Your task to perform on an android device: Search for a coffee table on Crate & Barrel Image 0: 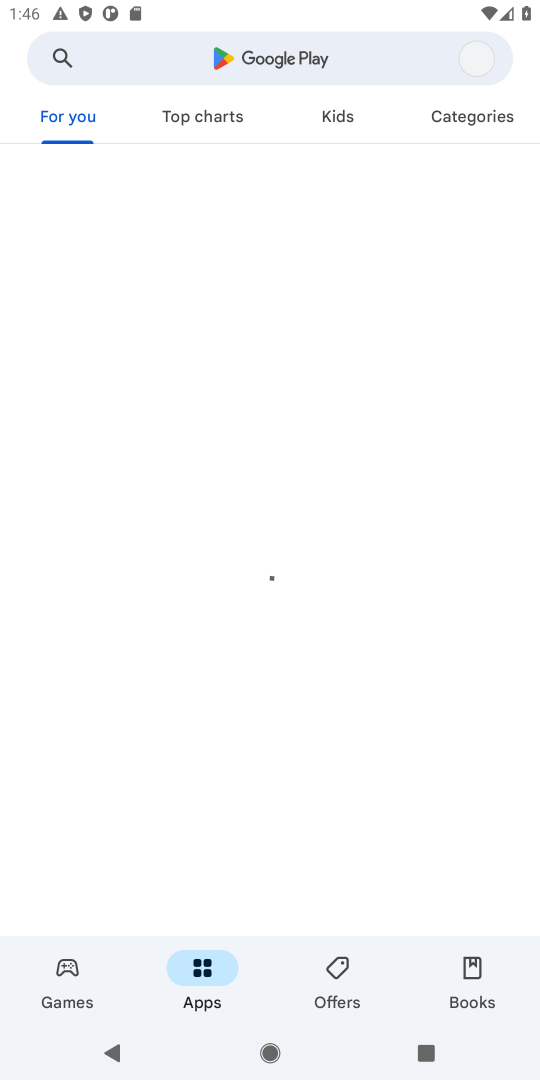
Step 0: press home button
Your task to perform on an android device: Search for a coffee table on Crate & Barrel Image 1: 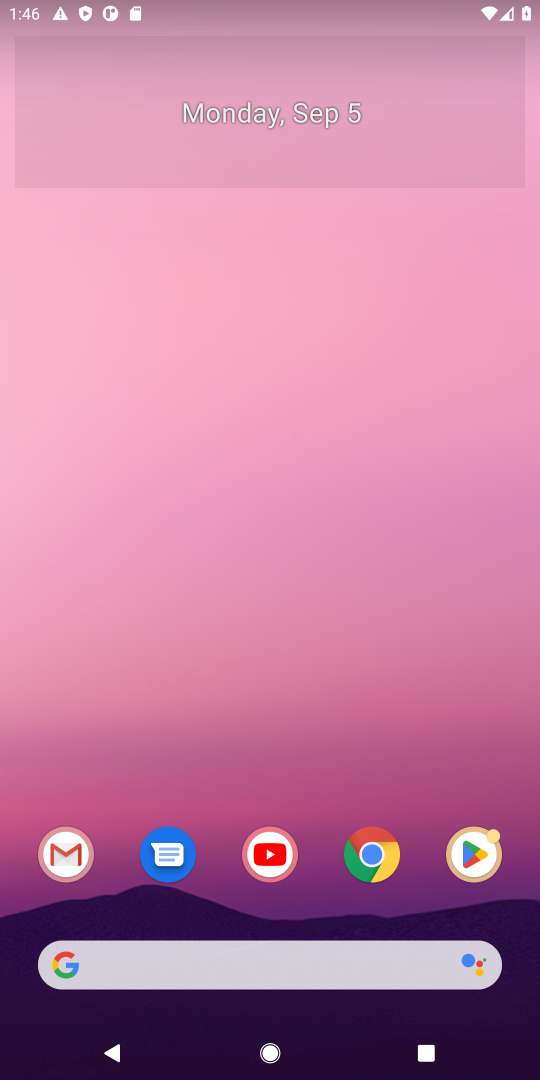
Step 1: click (353, 965)
Your task to perform on an android device: Search for a coffee table on Crate & Barrel Image 2: 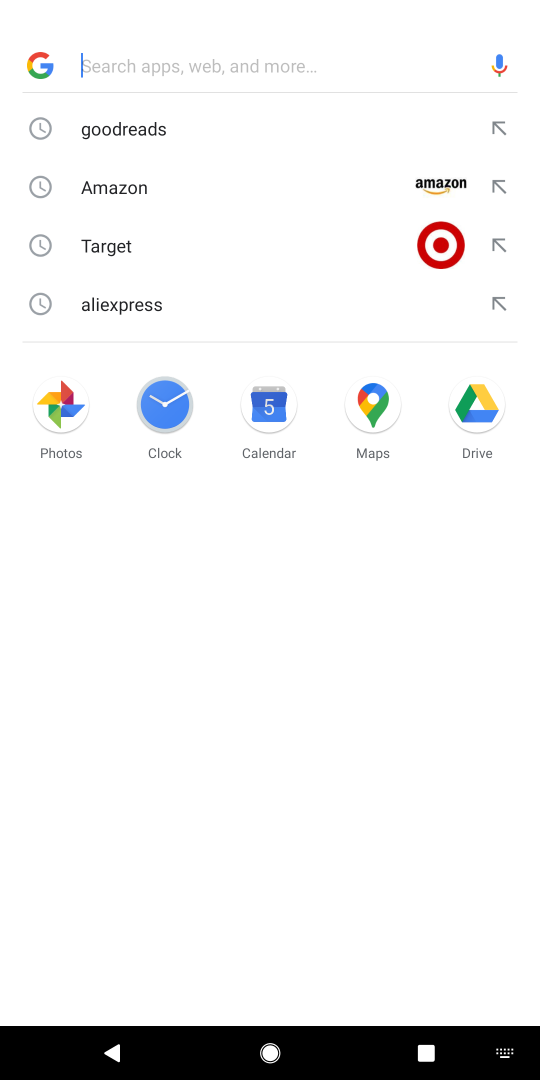
Step 2: type "crate barrel"
Your task to perform on an android device: Search for a coffee table on Crate & Barrel Image 3: 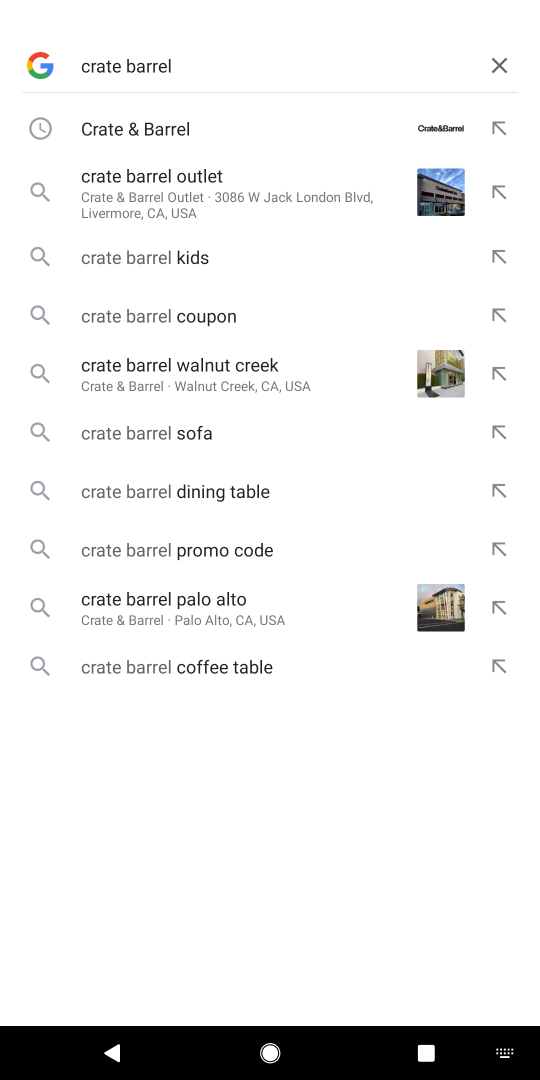
Step 3: press enter
Your task to perform on an android device: Search for a coffee table on Crate & Barrel Image 4: 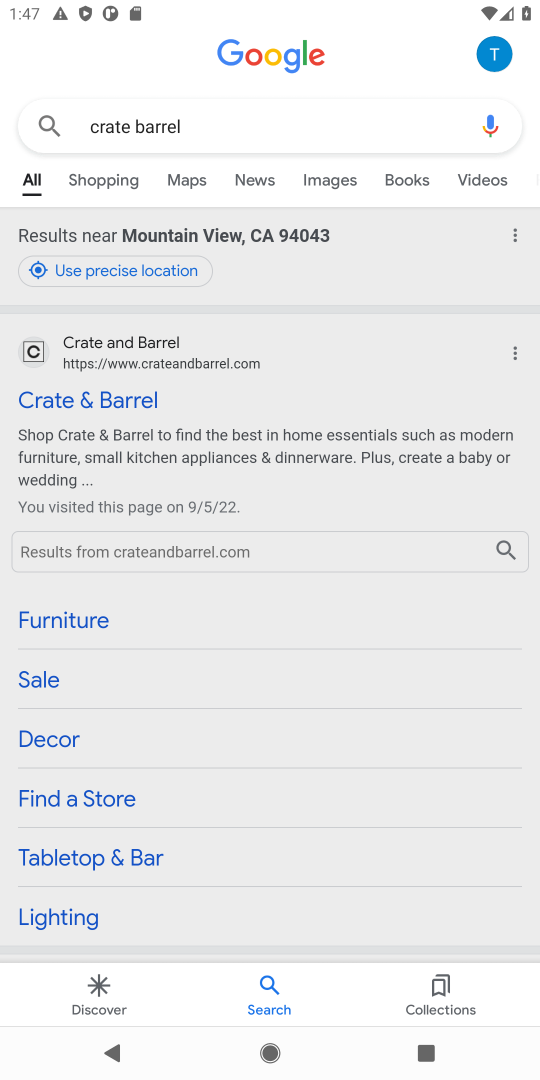
Step 4: click (97, 387)
Your task to perform on an android device: Search for a coffee table on Crate & Barrel Image 5: 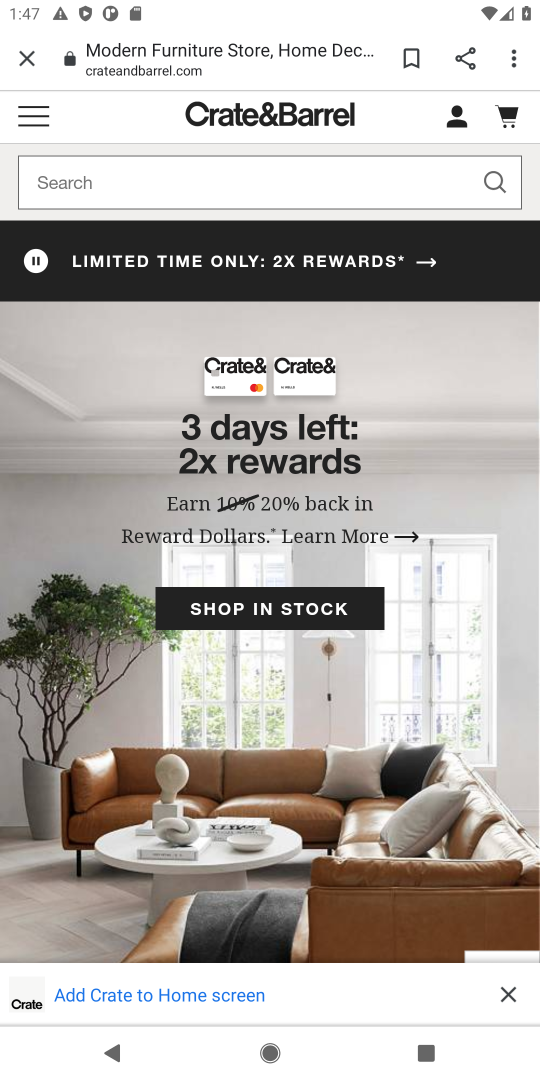
Step 5: click (152, 168)
Your task to perform on an android device: Search for a coffee table on Crate & Barrel Image 6: 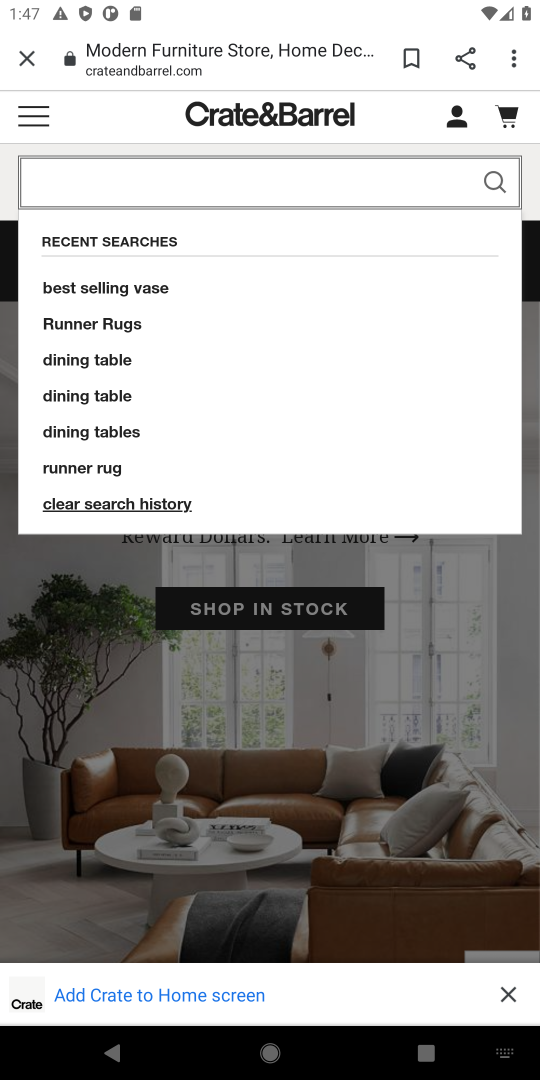
Step 6: press enter
Your task to perform on an android device: Search for a coffee table on Crate & Barrel Image 7: 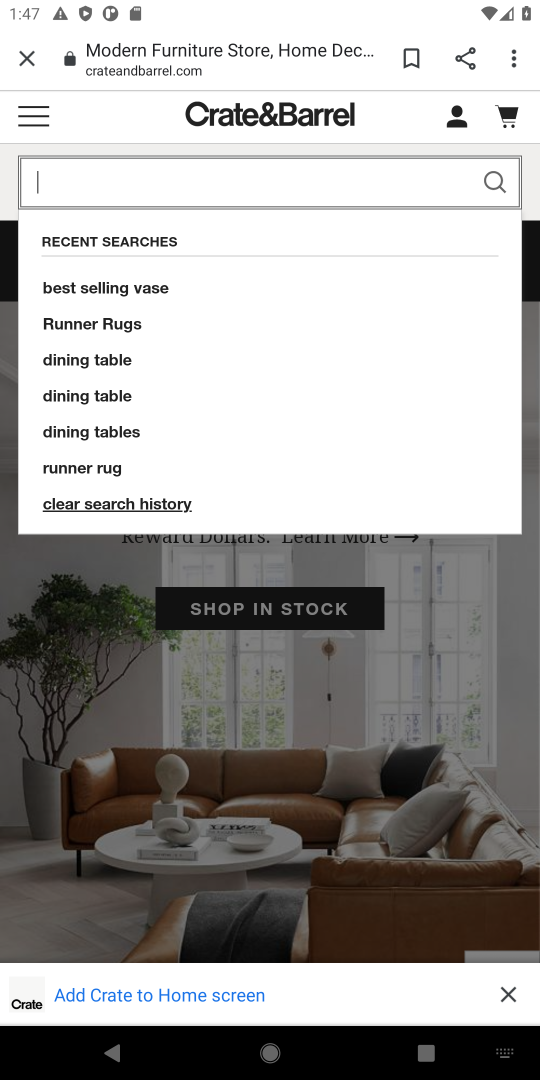
Step 7: type "coffee table"
Your task to perform on an android device: Search for a coffee table on Crate & Barrel Image 8: 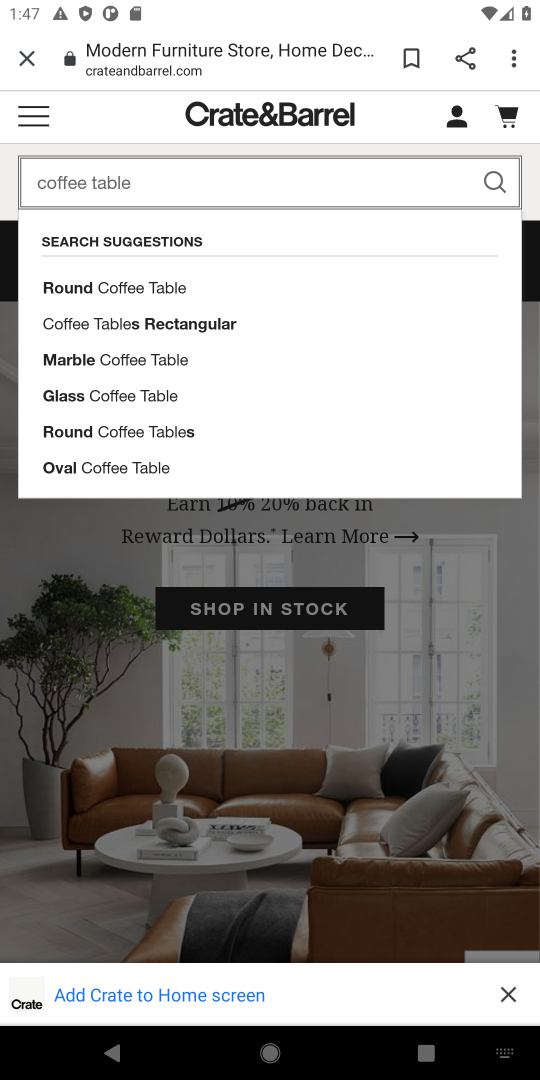
Step 8: click (498, 178)
Your task to perform on an android device: Search for a coffee table on Crate & Barrel Image 9: 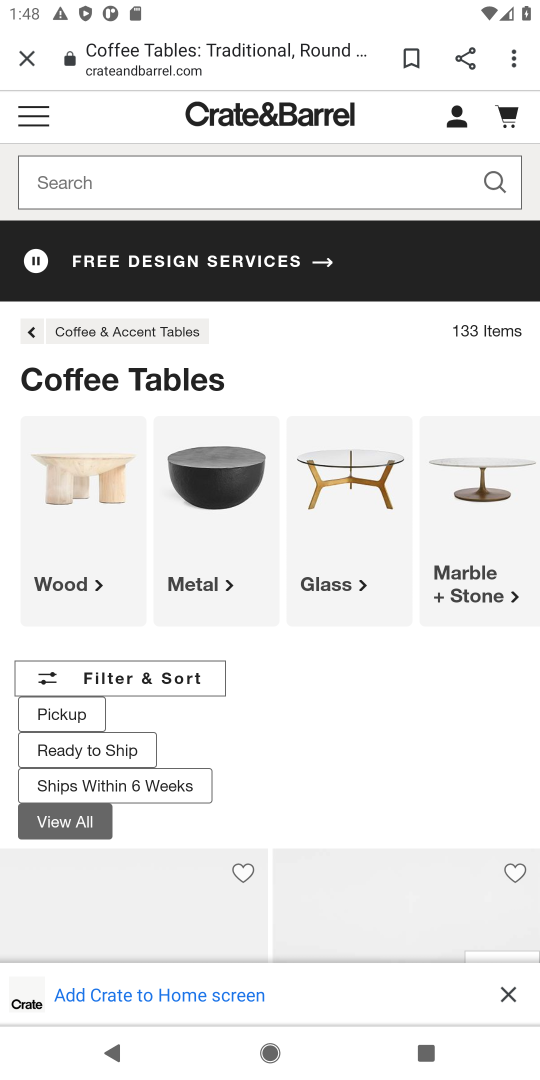
Step 9: task complete